Your task to perform on an android device: empty trash in the gmail app Image 0: 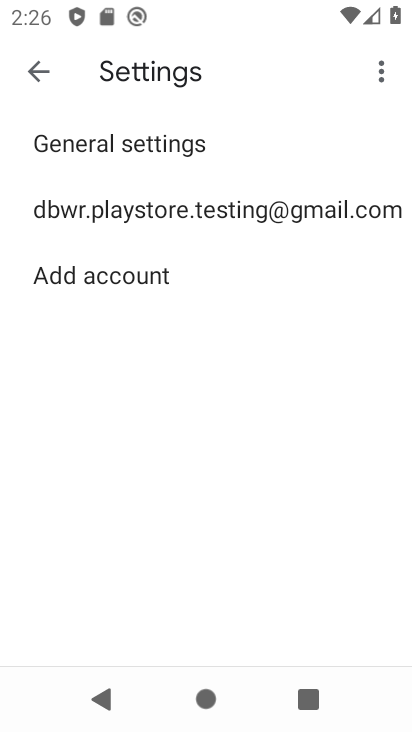
Step 0: press home button
Your task to perform on an android device: empty trash in the gmail app Image 1: 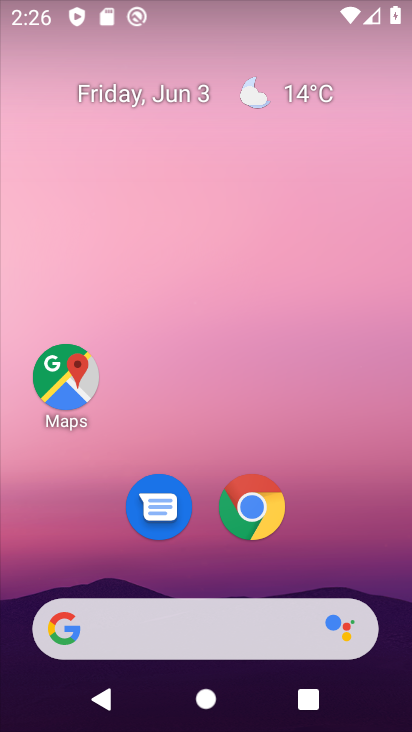
Step 1: drag from (307, 554) to (236, 72)
Your task to perform on an android device: empty trash in the gmail app Image 2: 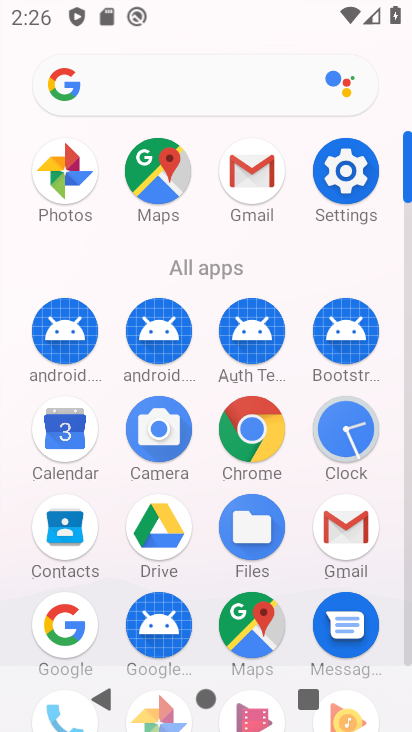
Step 2: click (250, 167)
Your task to perform on an android device: empty trash in the gmail app Image 3: 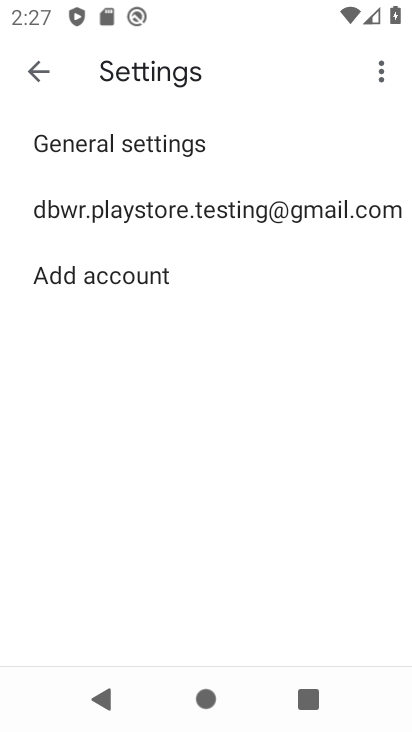
Step 3: click (31, 77)
Your task to perform on an android device: empty trash in the gmail app Image 4: 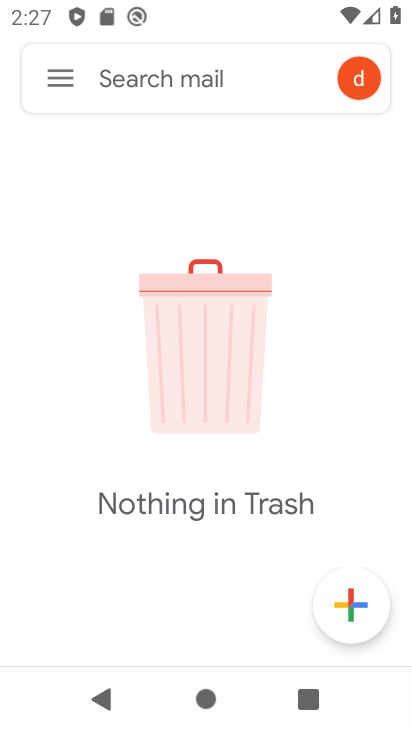
Step 4: click (64, 81)
Your task to perform on an android device: empty trash in the gmail app Image 5: 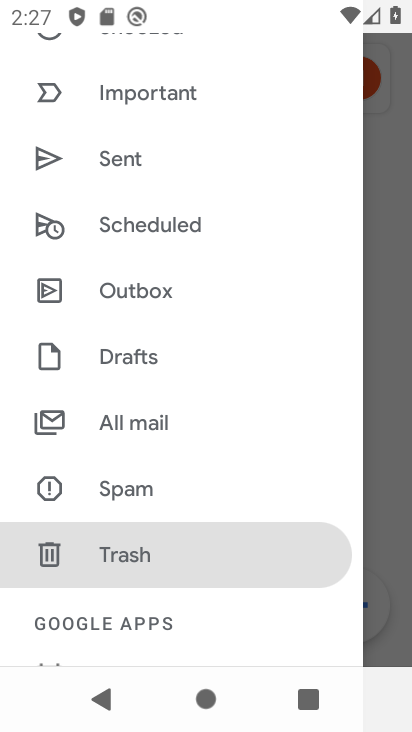
Step 5: click (175, 547)
Your task to perform on an android device: empty trash in the gmail app Image 6: 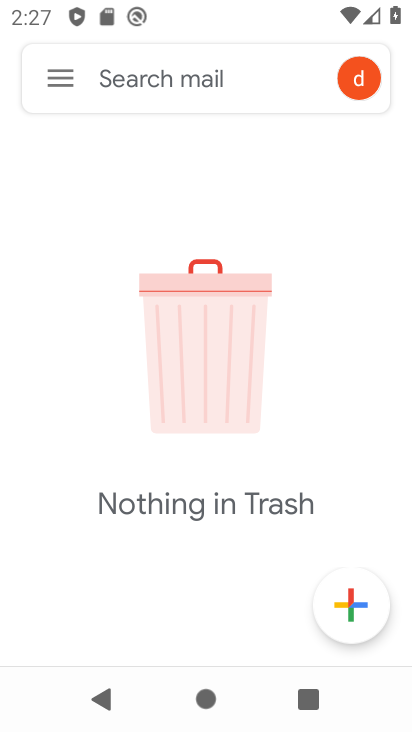
Step 6: task complete